Your task to perform on an android device: Search for seafood restaurants on Google Maps Image 0: 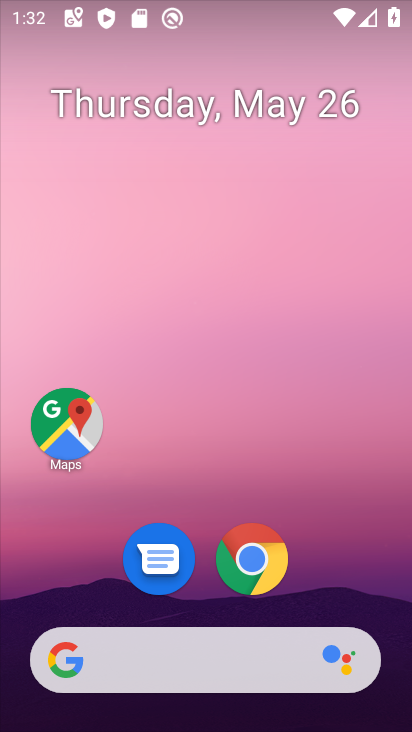
Step 0: click (74, 435)
Your task to perform on an android device: Search for seafood restaurants on Google Maps Image 1: 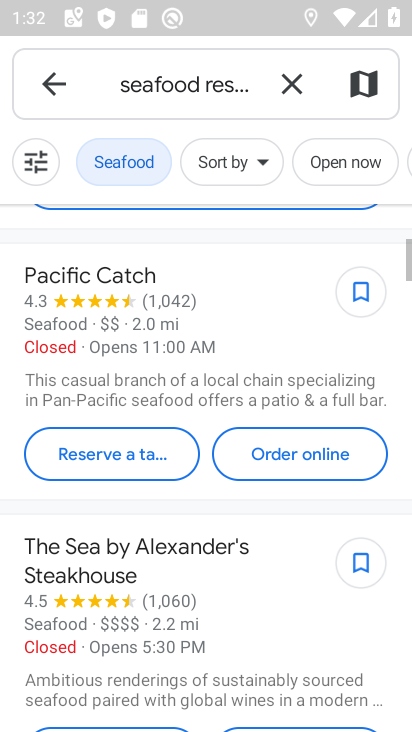
Step 1: task complete